Your task to perform on an android device: Open battery settings Image 0: 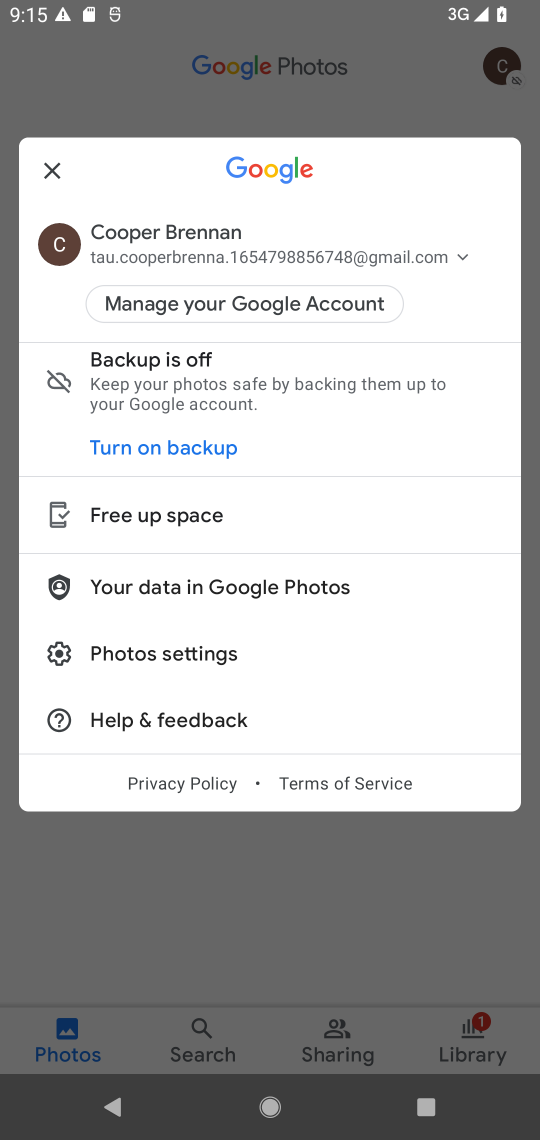
Step 0: press home button
Your task to perform on an android device: Open battery settings Image 1: 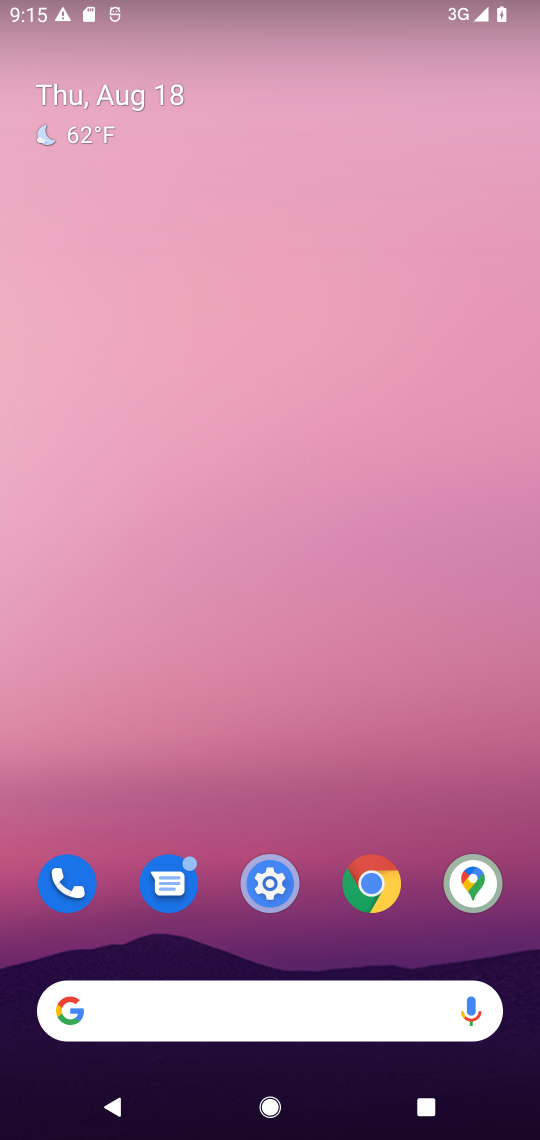
Step 1: drag from (41, 1121) to (257, 472)
Your task to perform on an android device: Open battery settings Image 2: 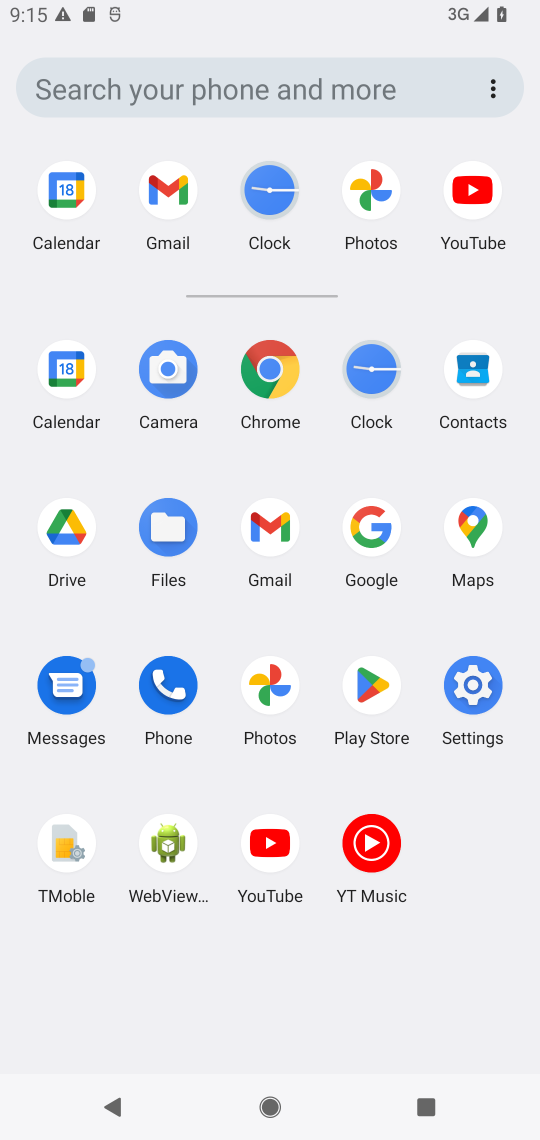
Step 2: click (478, 677)
Your task to perform on an android device: Open battery settings Image 3: 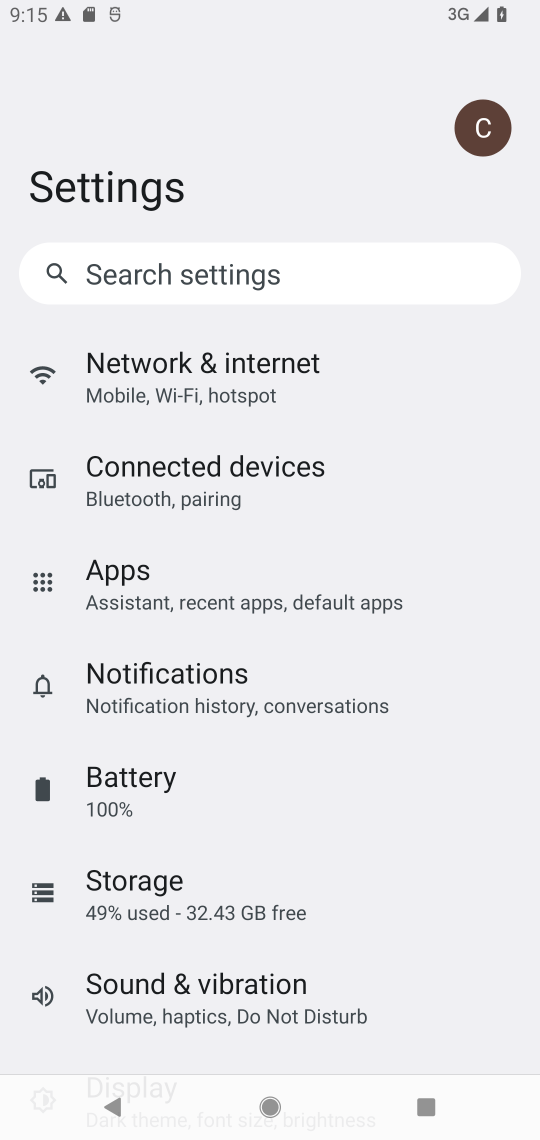
Step 3: click (147, 775)
Your task to perform on an android device: Open battery settings Image 4: 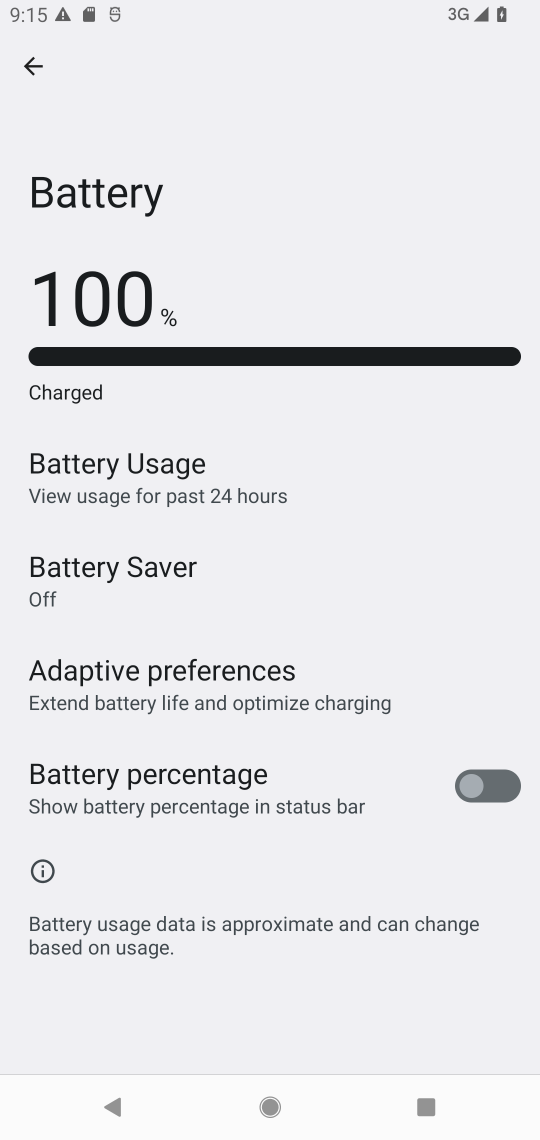
Step 4: task complete